Your task to perform on an android device: Open the stopwatch Image 0: 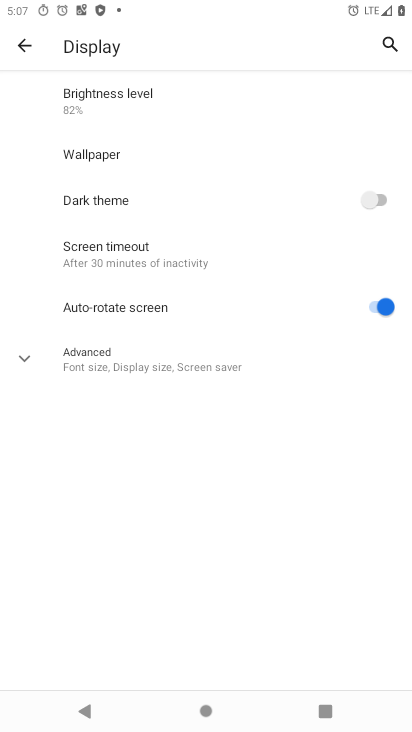
Step 0: press home button
Your task to perform on an android device: Open the stopwatch Image 1: 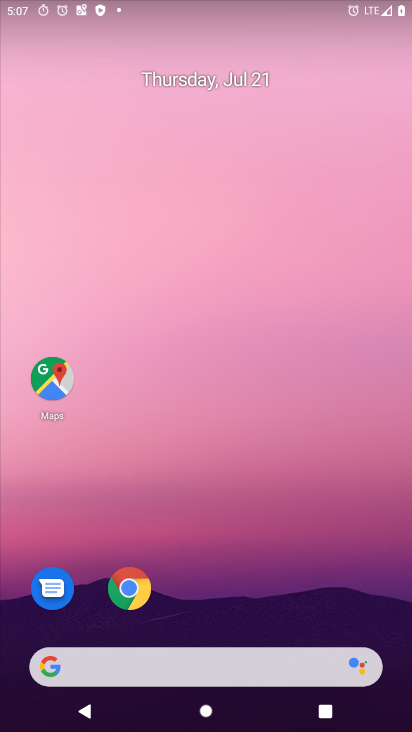
Step 1: drag from (241, 596) to (315, 121)
Your task to perform on an android device: Open the stopwatch Image 2: 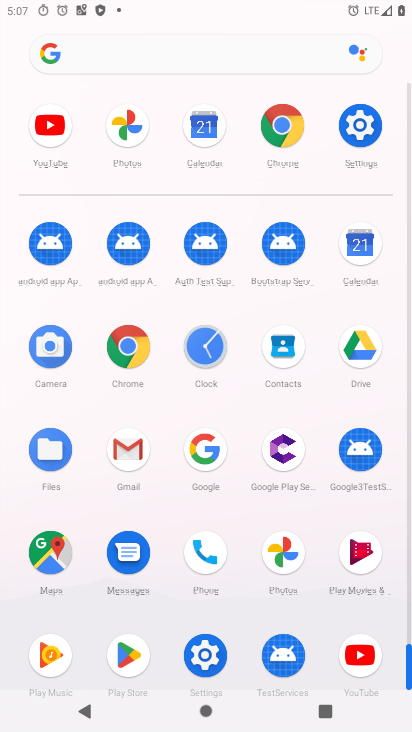
Step 2: click (205, 347)
Your task to perform on an android device: Open the stopwatch Image 3: 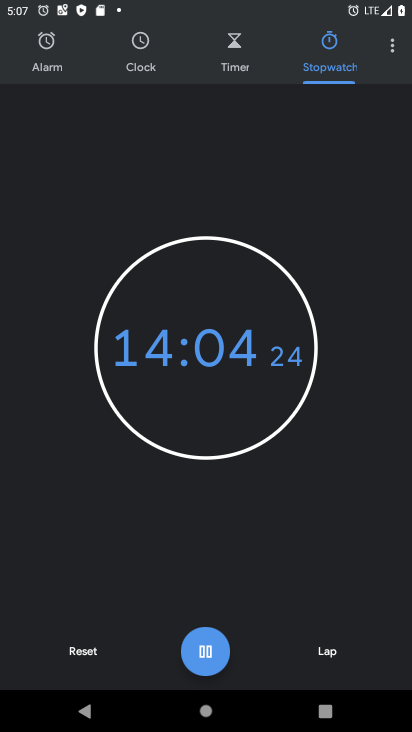
Step 3: task complete